Your task to perform on an android device: Open Android settings Image 0: 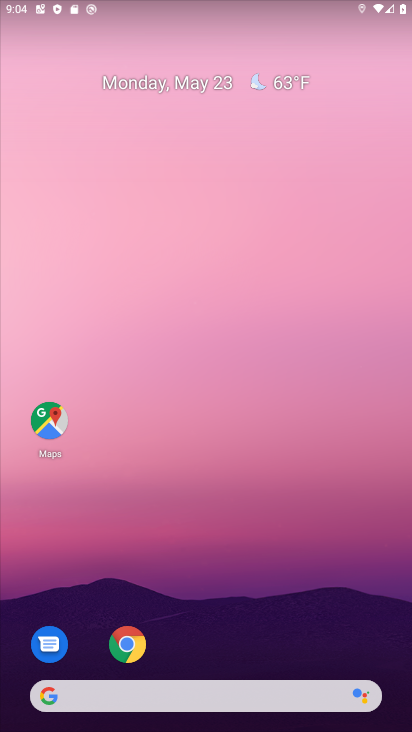
Step 0: drag from (215, 657) to (258, 138)
Your task to perform on an android device: Open Android settings Image 1: 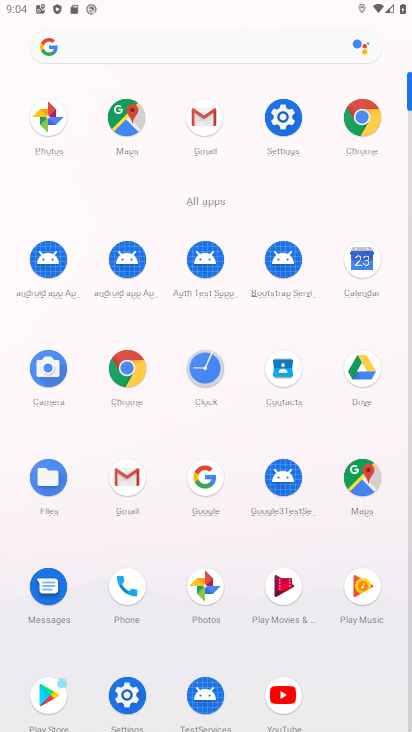
Step 1: click (279, 107)
Your task to perform on an android device: Open Android settings Image 2: 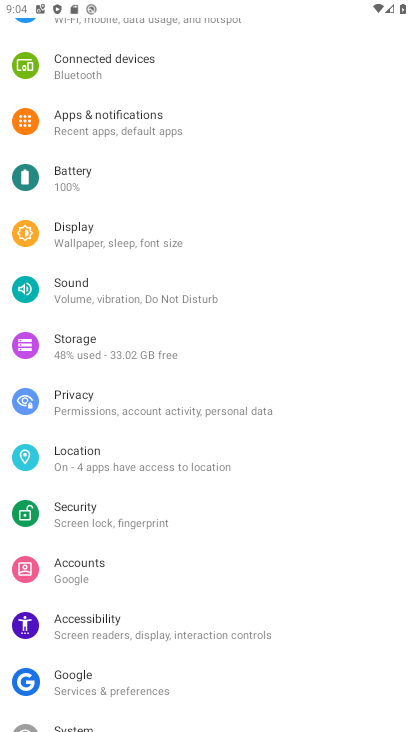
Step 2: drag from (174, 662) to (189, 205)
Your task to perform on an android device: Open Android settings Image 3: 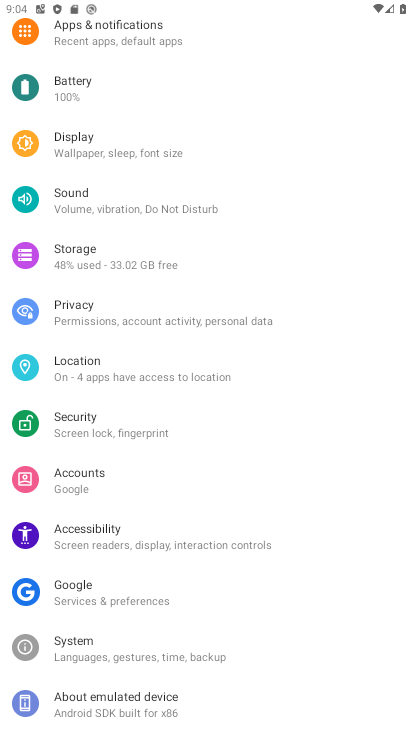
Step 3: click (183, 705)
Your task to perform on an android device: Open Android settings Image 4: 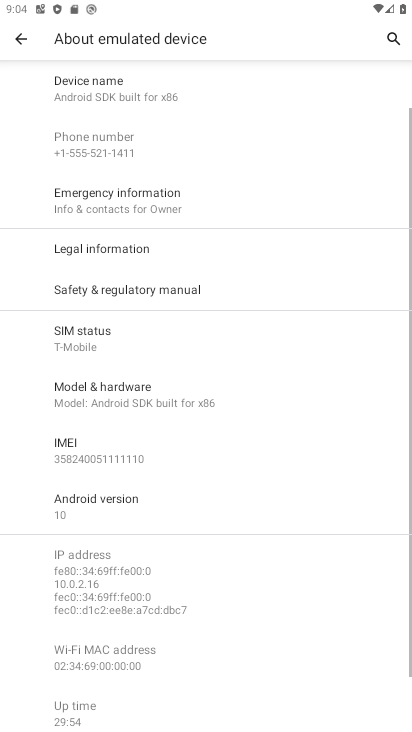
Step 4: click (125, 499)
Your task to perform on an android device: Open Android settings Image 5: 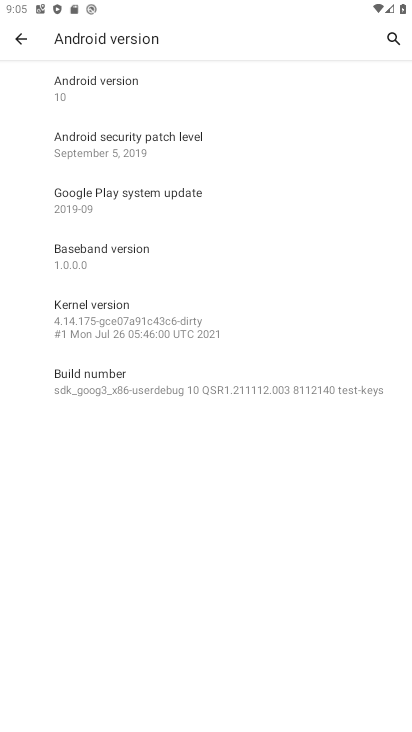
Step 5: task complete